Your task to perform on an android device: turn on sleep mode Image 0: 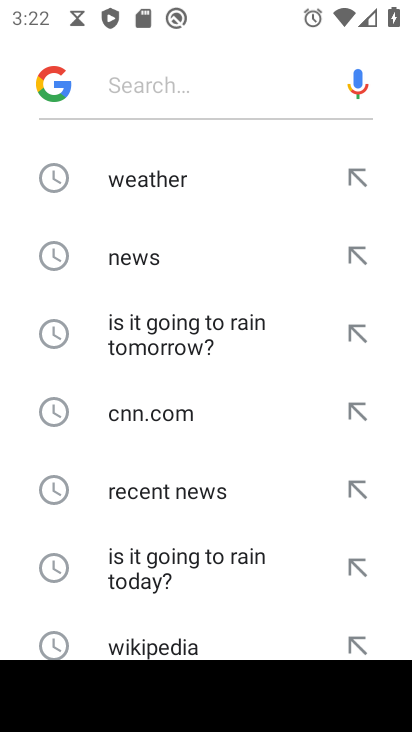
Step 0: press home button
Your task to perform on an android device: turn on sleep mode Image 1: 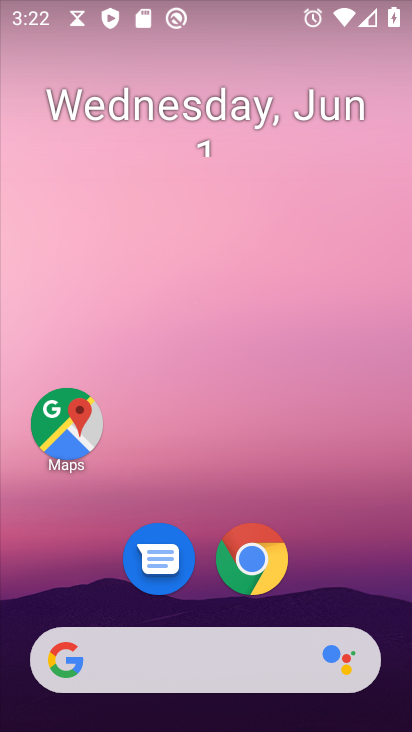
Step 1: drag from (323, 585) to (304, 0)
Your task to perform on an android device: turn on sleep mode Image 2: 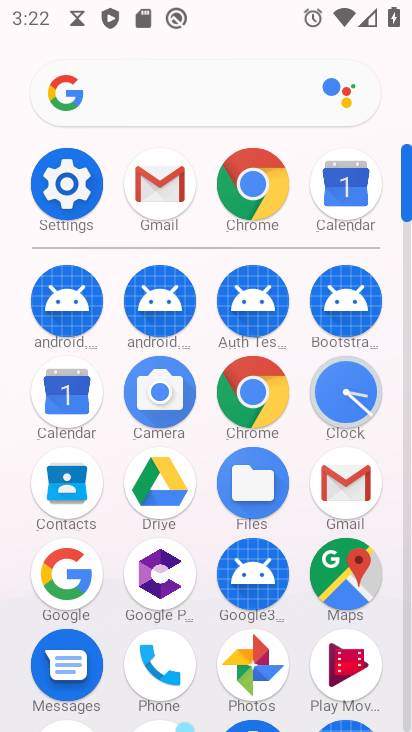
Step 2: click (82, 193)
Your task to perform on an android device: turn on sleep mode Image 3: 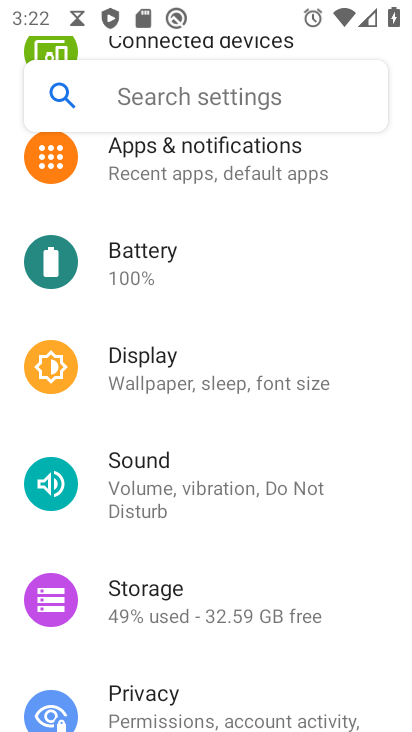
Step 3: click (192, 382)
Your task to perform on an android device: turn on sleep mode Image 4: 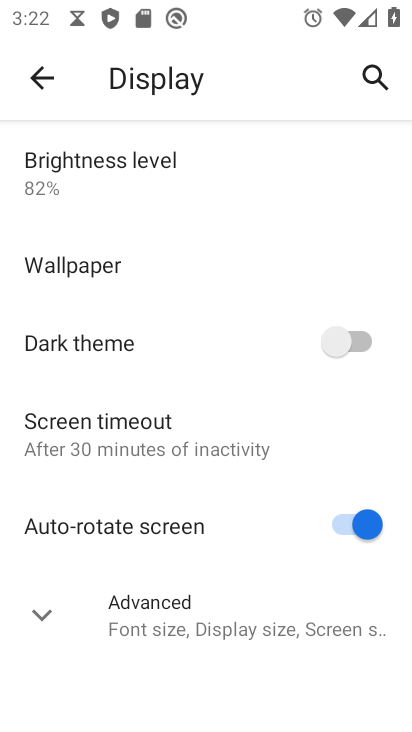
Step 4: click (167, 638)
Your task to perform on an android device: turn on sleep mode Image 5: 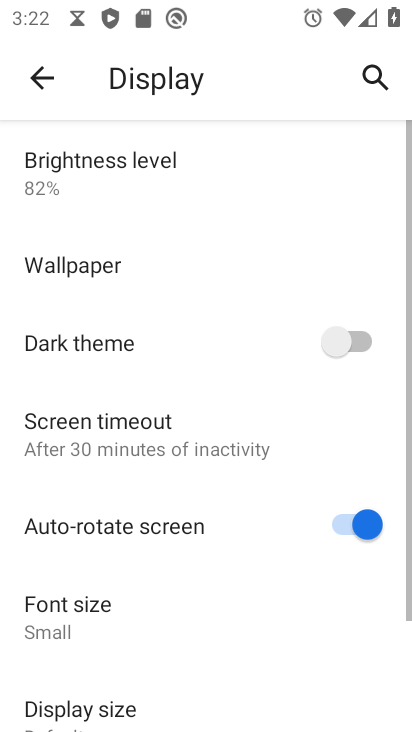
Step 5: drag from (148, 651) to (172, 89)
Your task to perform on an android device: turn on sleep mode Image 6: 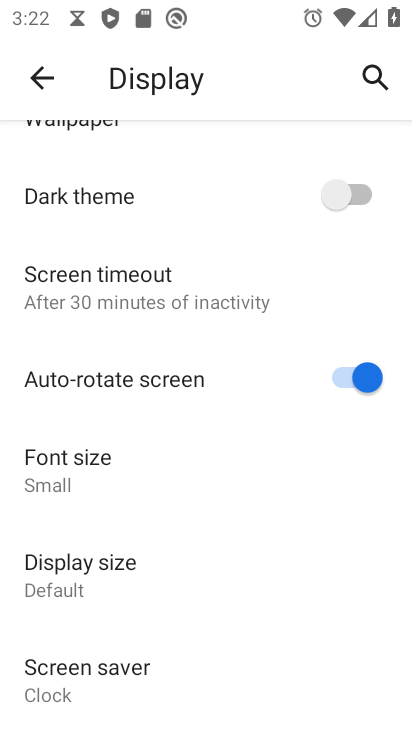
Step 6: click (53, 93)
Your task to perform on an android device: turn on sleep mode Image 7: 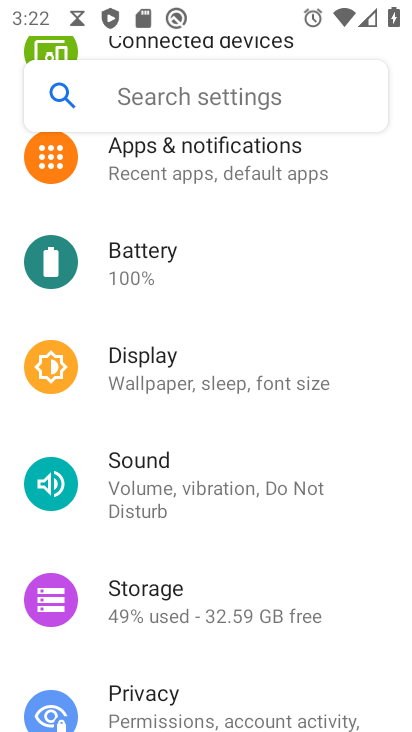
Step 7: task complete